Your task to perform on an android device: stop showing notifications on the lock screen Image 0: 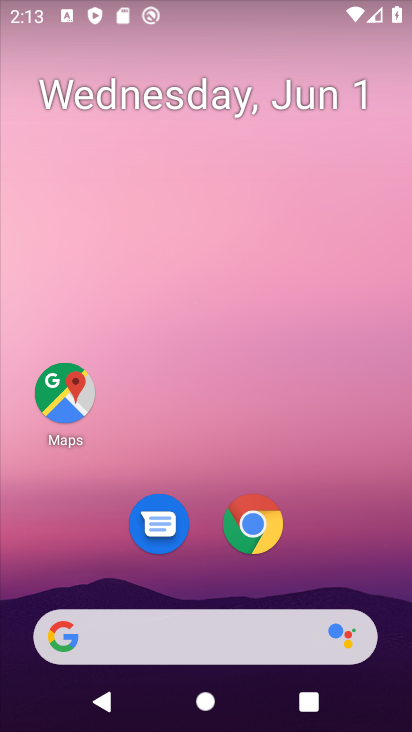
Step 0: drag from (303, 568) to (261, 63)
Your task to perform on an android device: stop showing notifications on the lock screen Image 1: 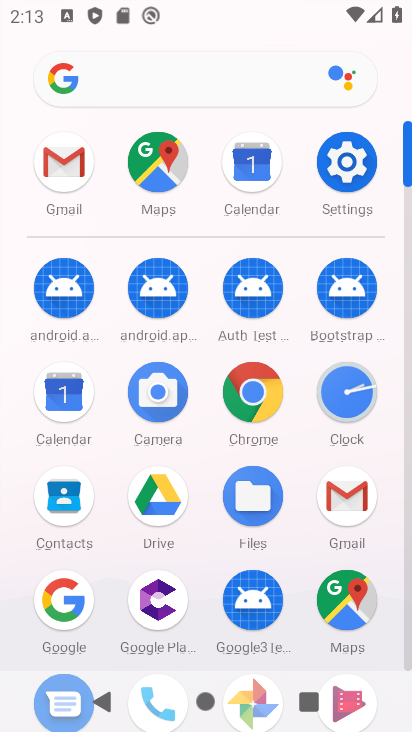
Step 1: click (352, 165)
Your task to perform on an android device: stop showing notifications on the lock screen Image 2: 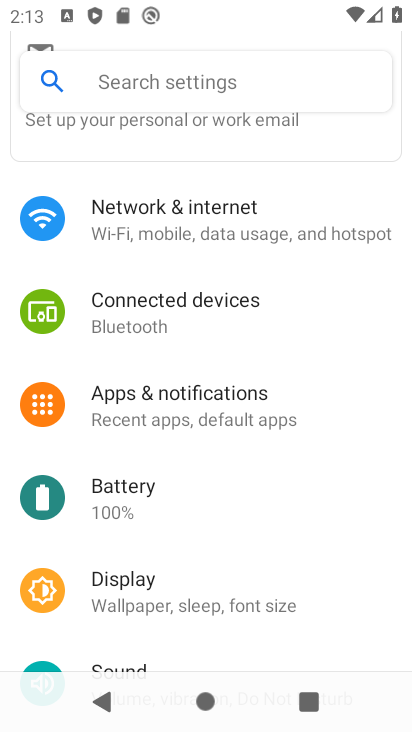
Step 2: click (263, 416)
Your task to perform on an android device: stop showing notifications on the lock screen Image 3: 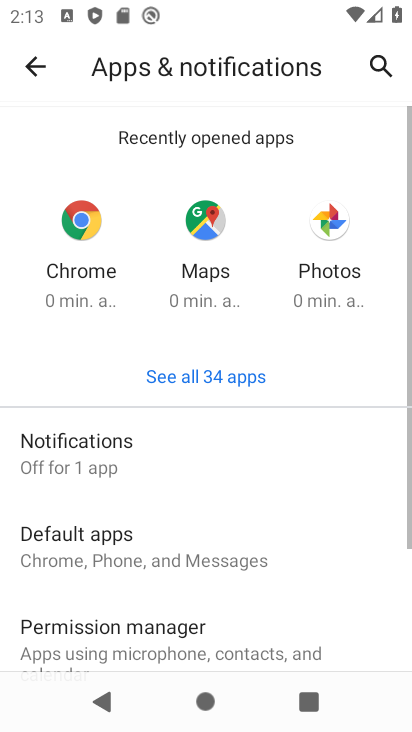
Step 3: click (191, 450)
Your task to perform on an android device: stop showing notifications on the lock screen Image 4: 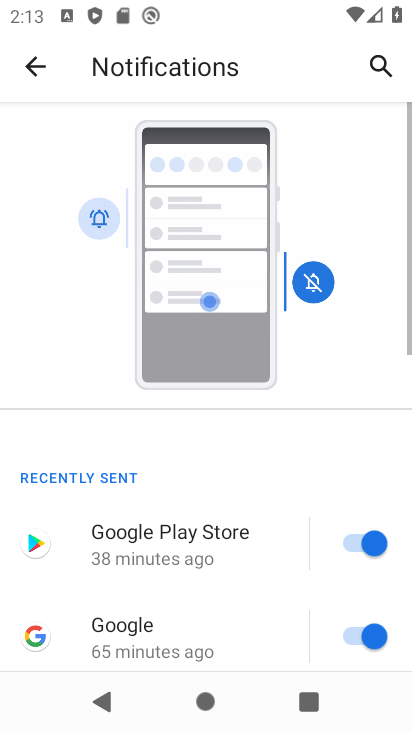
Step 4: drag from (302, 534) to (281, 115)
Your task to perform on an android device: stop showing notifications on the lock screen Image 5: 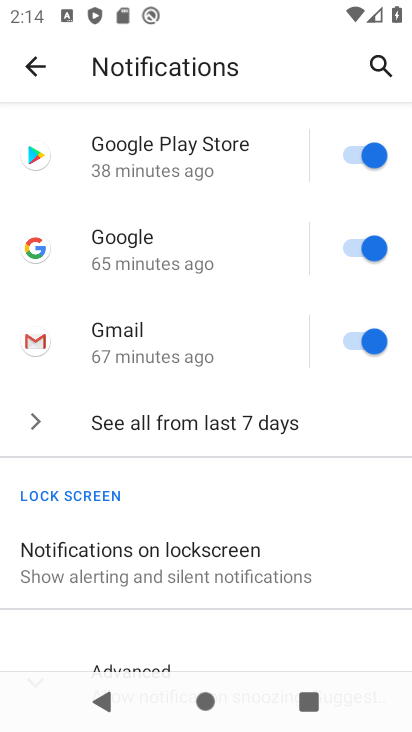
Step 5: click (173, 549)
Your task to perform on an android device: stop showing notifications on the lock screen Image 6: 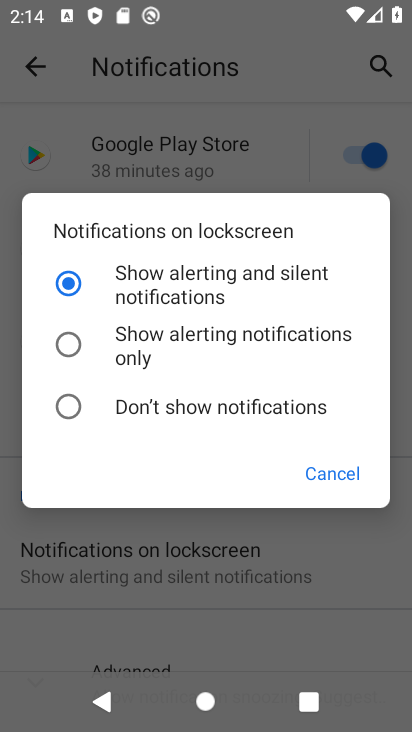
Step 6: click (57, 400)
Your task to perform on an android device: stop showing notifications on the lock screen Image 7: 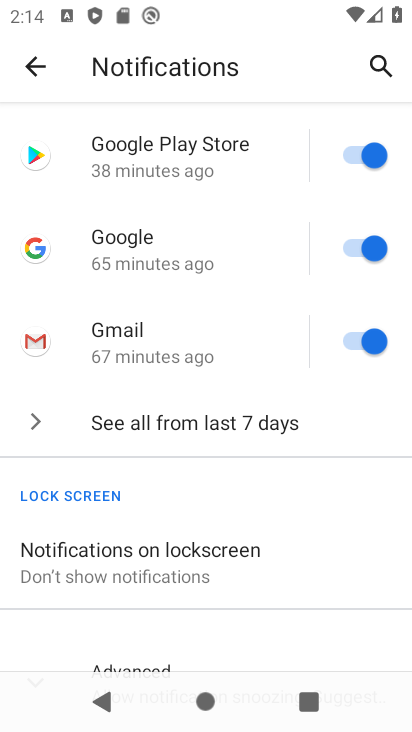
Step 7: task complete